Your task to perform on an android device: allow cookies in the chrome app Image 0: 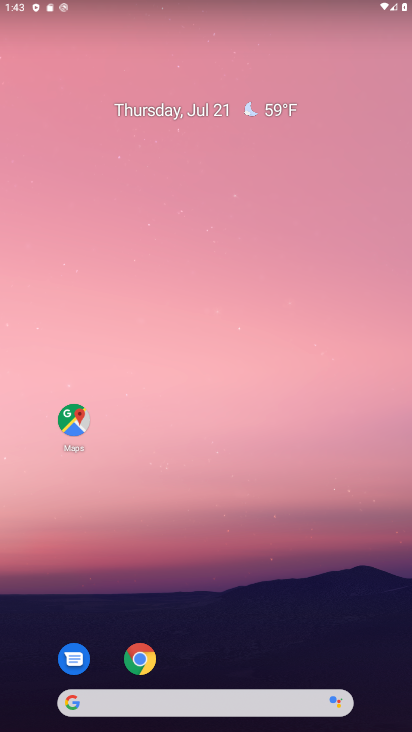
Step 0: drag from (176, 701) to (259, 11)
Your task to perform on an android device: allow cookies in the chrome app Image 1: 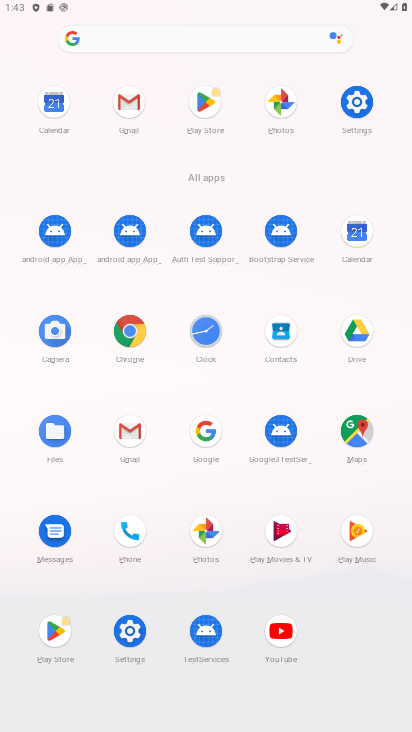
Step 1: click (140, 325)
Your task to perform on an android device: allow cookies in the chrome app Image 2: 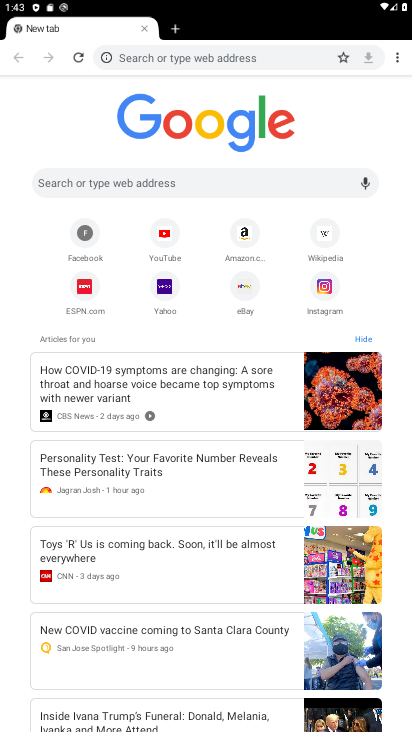
Step 2: drag from (402, 64) to (300, 261)
Your task to perform on an android device: allow cookies in the chrome app Image 3: 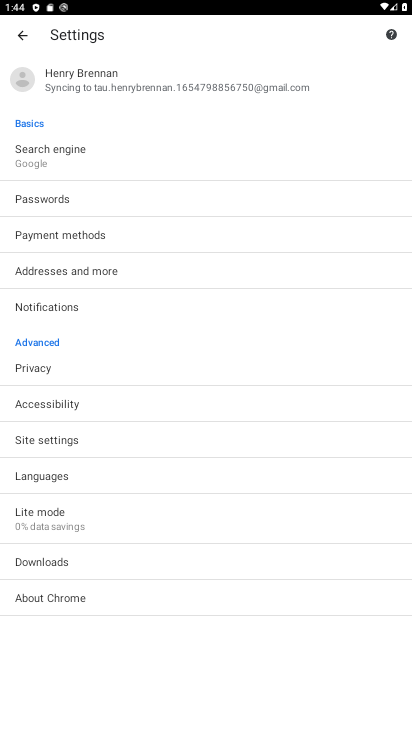
Step 3: click (38, 441)
Your task to perform on an android device: allow cookies in the chrome app Image 4: 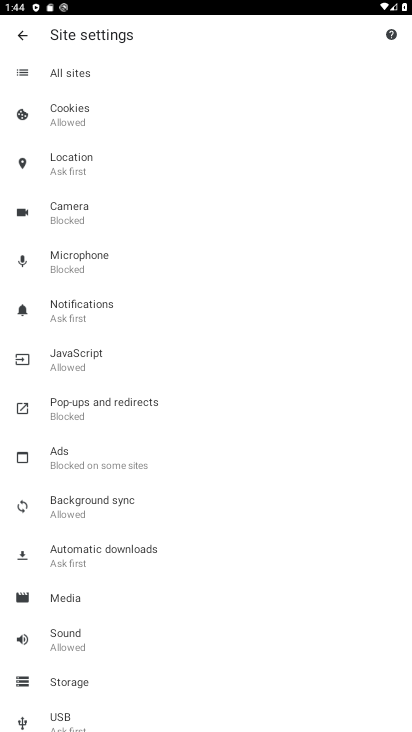
Step 4: click (51, 117)
Your task to perform on an android device: allow cookies in the chrome app Image 5: 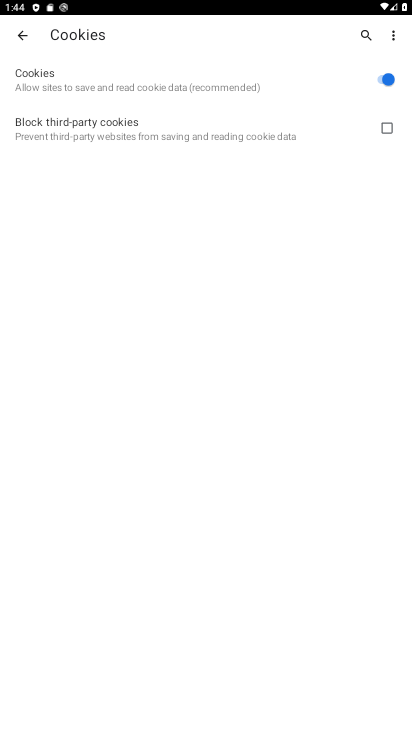
Step 5: task complete